Your task to perform on an android device: see tabs open on other devices in the chrome app Image 0: 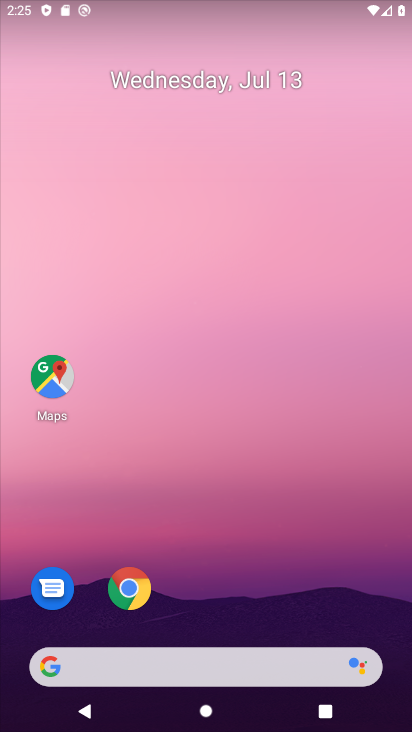
Step 0: click (127, 584)
Your task to perform on an android device: see tabs open on other devices in the chrome app Image 1: 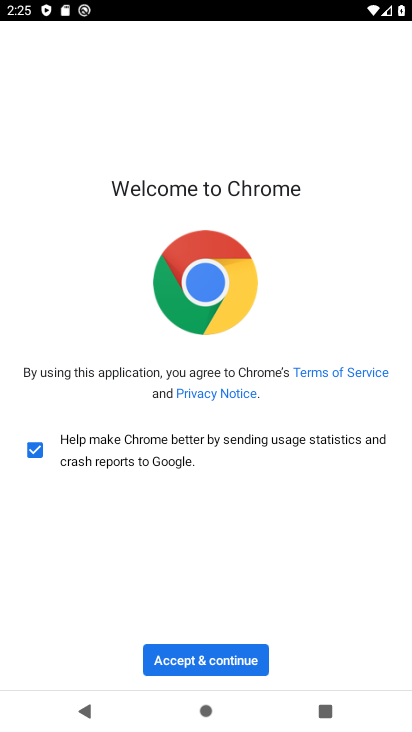
Step 1: click (194, 650)
Your task to perform on an android device: see tabs open on other devices in the chrome app Image 2: 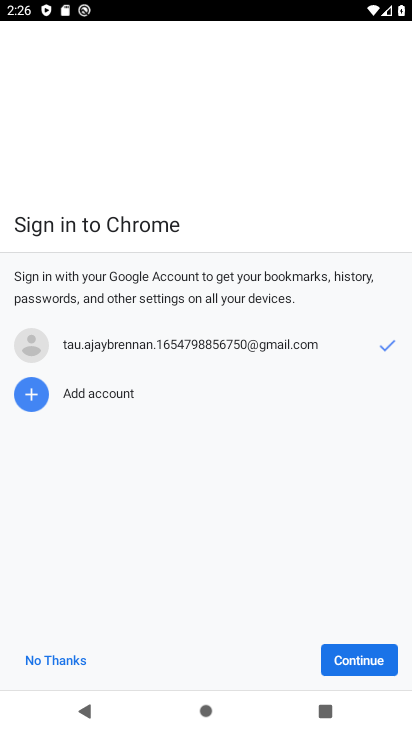
Step 2: click (355, 667)
Your task to perform on an android device: see tabs open on other devices in the chrome app Image 3: 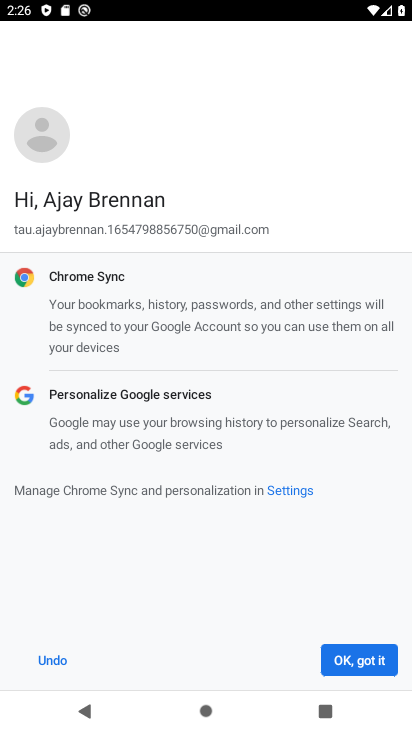
Step 3: click (355, 667)
Your task to perform on an android device: see tabs open on other devices in the chrome app Image 4: 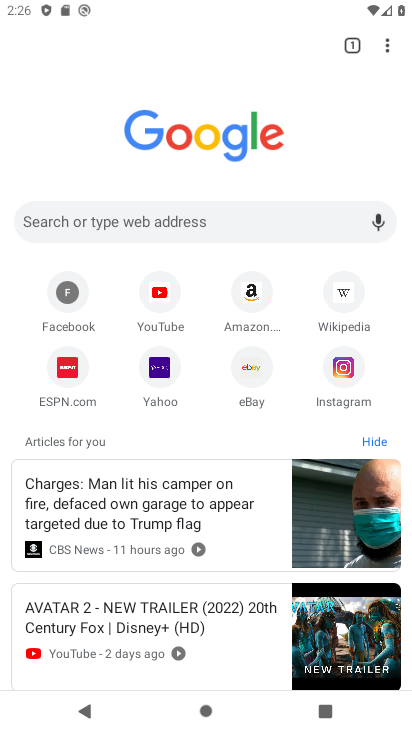
Step 4: click (388, 50)
Your task to perform on an android device: see tabs open on other devices in the chrome app Image 5: 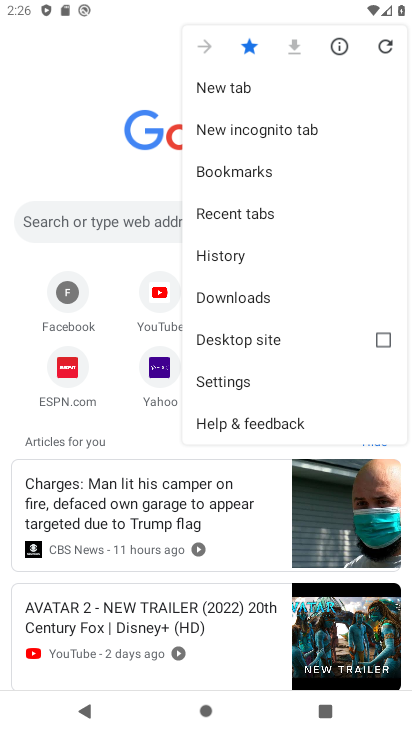
Step 5: click (241, 206)
Your task to perform on an android device: see tabs open on other devices in the chrome app Image 6: 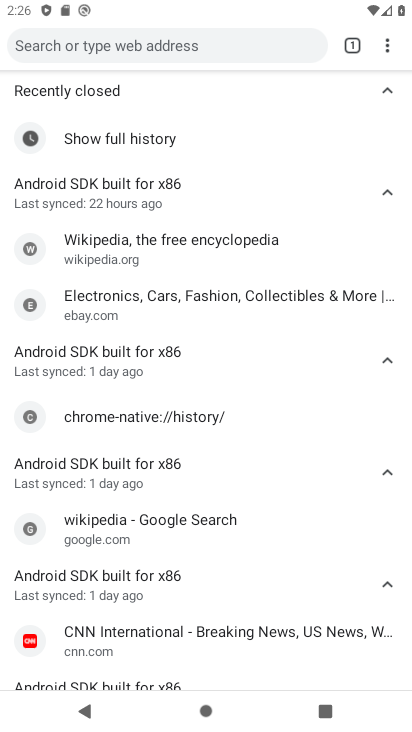
Step 6: task complete